Your task to perform on an android device: toggle translation in the chrome app Image 0: 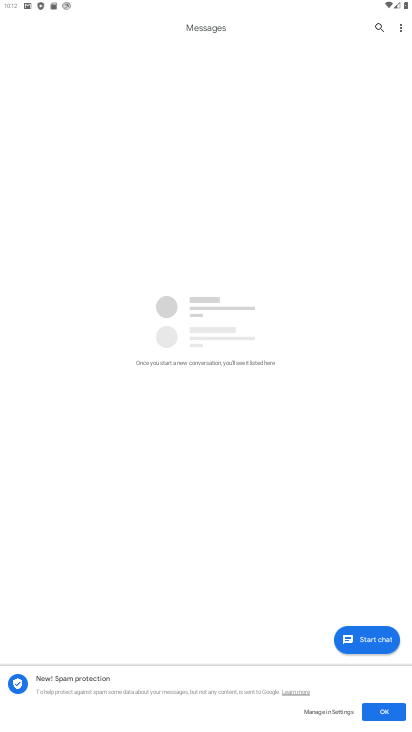
Step 0: press home button
Your task to perform on an android device: toggle translation in the chrome app Image 1: 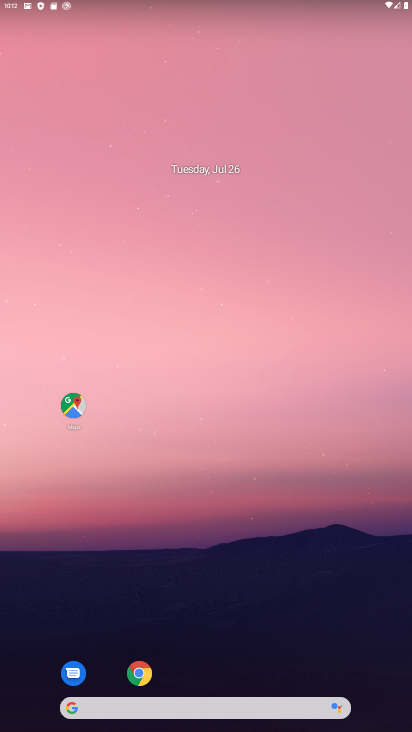
Step 1: click (143, 668)
Your task to perform on an android device: toggle translation in the chrome app Image 2: 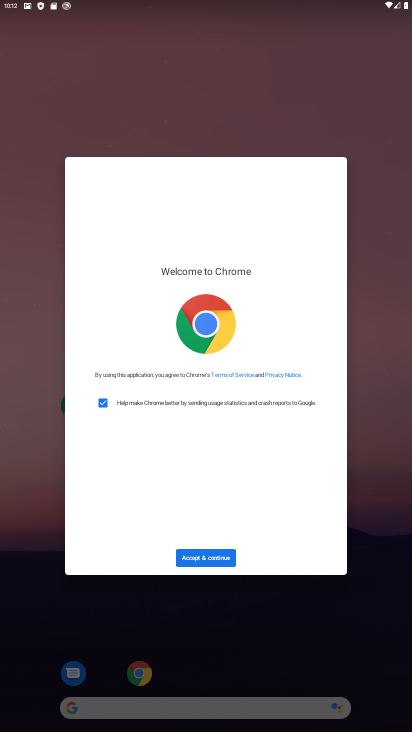
Step 2: click (248, 490)
Your task to perform on an android device: toggle translation in the chrome app Image 3: 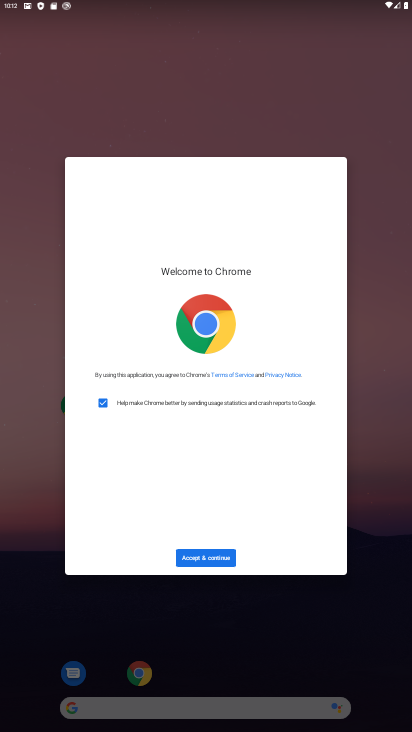
Step 3: click (201, 564)
Your task to perform on an android device: toggle translation in the chrome app Image 4: 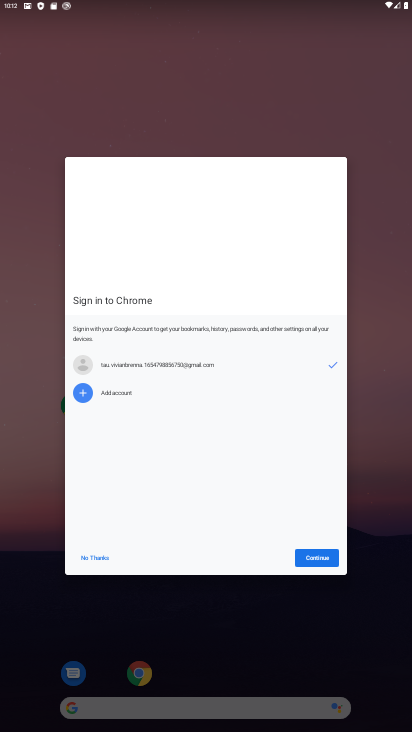
Step 4: drag from (218, 506) to (188, 536)
Your task to perform on an android device: toggle translation in the chrome app Image 5: 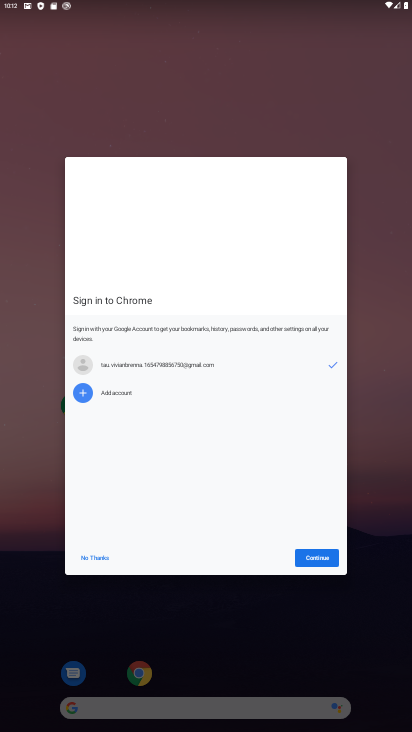
Step 5: click (314, 561)
Your task to perform on an android device: toggle translation in the chrome app Image 6: 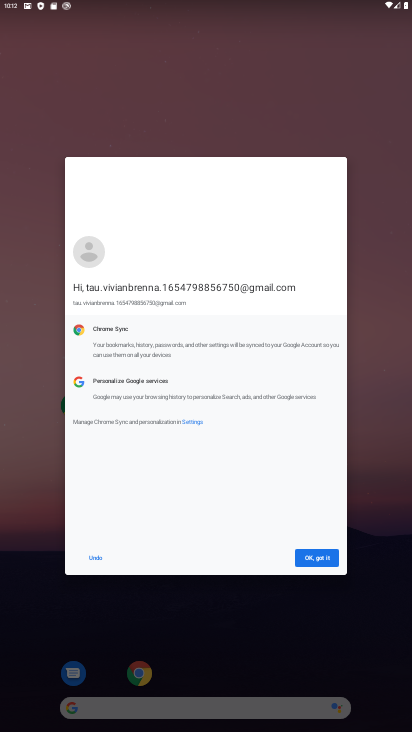
Step 6: click (318, 559)
Your task to perform on an android device: toggle translation in the chrome app Image 7: 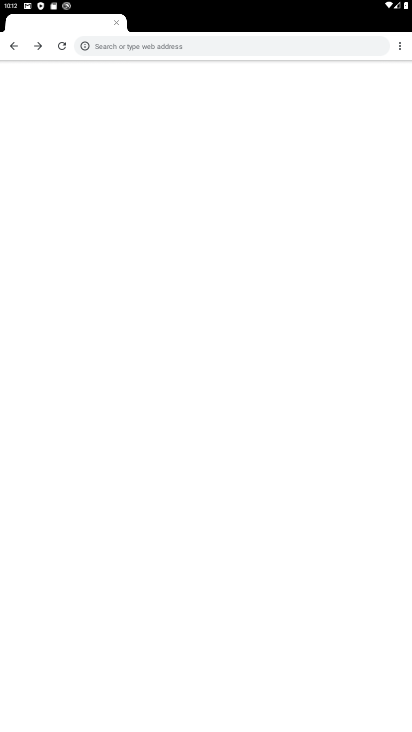
Step 7: click (84, 559)
Your task to perform on an android device: toggle translation in the chrome app Image 8: 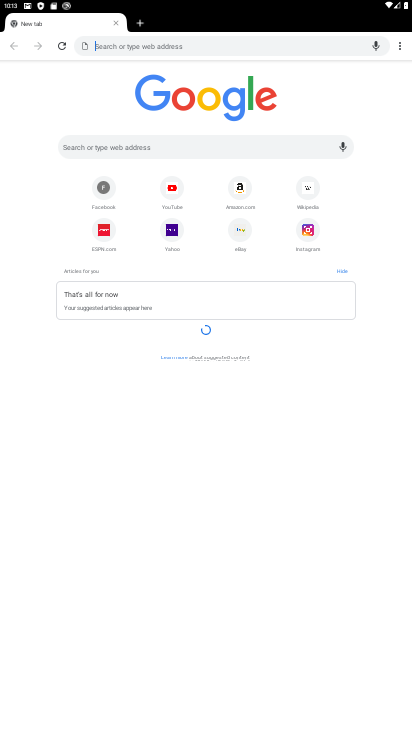
Step 8: click (397, 42)
Your task to perform on an android device: toggle translation in the chrome app Image 9: 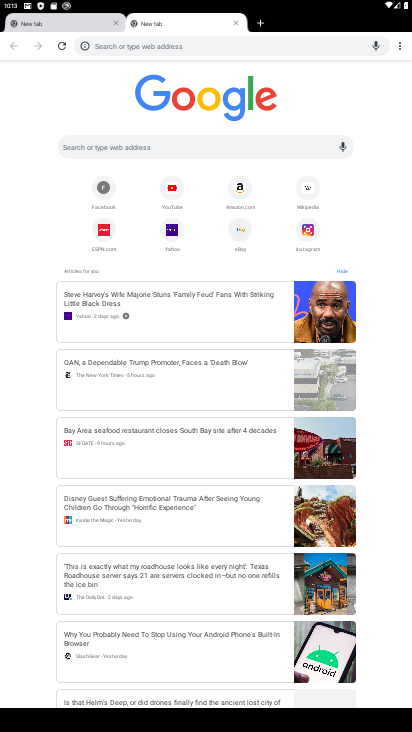
Step 9: click (399, 51)
Your task to perform on an android device: toggle translation in the chrome app Image 10: 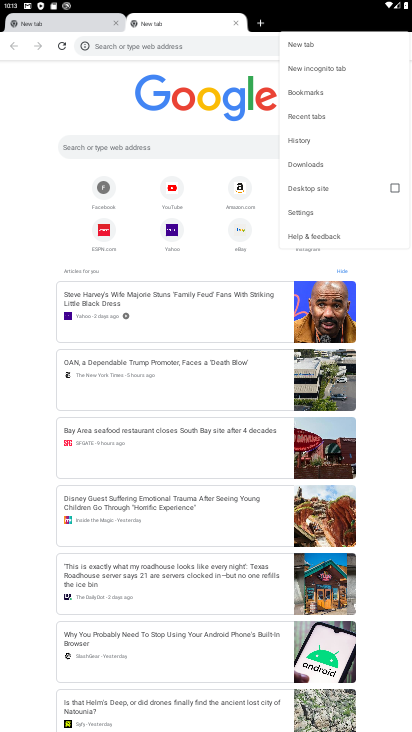
Step 10: click (298, 213)
Your task to perform on an android device: toggle translation in the chrome app Image 11: 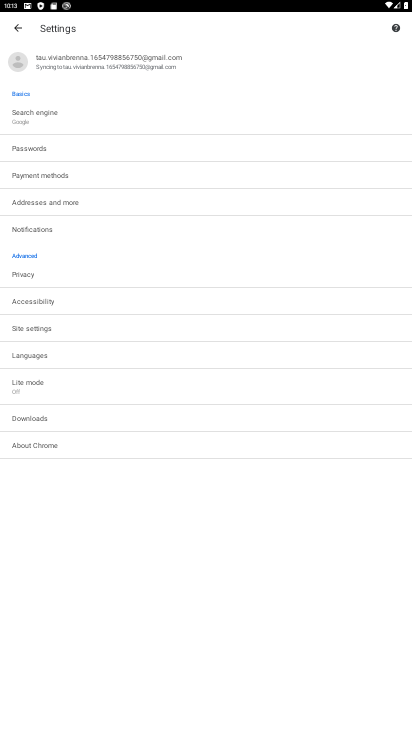
Step 11: click (67, 355)
Your task to perform on an android device: toggle translation in the chrome app Image 12: 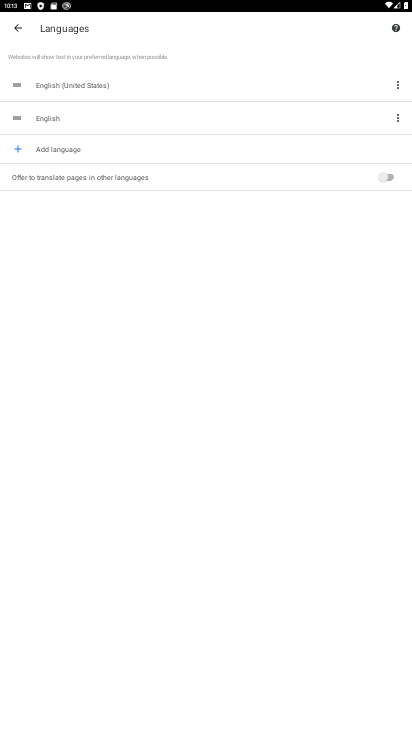
Step 12: click (392, 182)
Your task to perform on an android device: toggle translation in the chrome app Image 13: 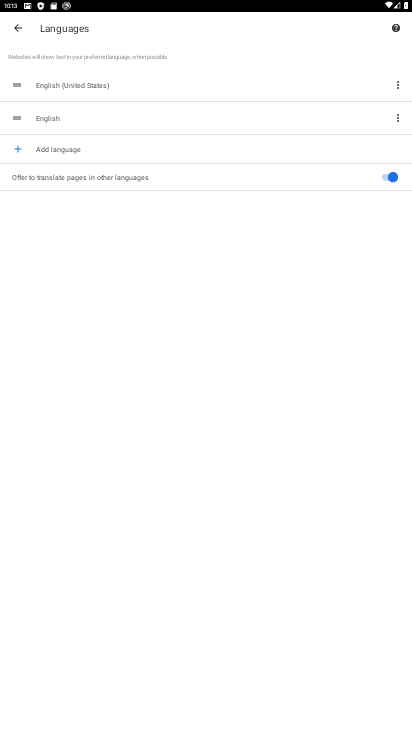
Step 13: task complete